Your task to perform on an android device: add a contact in the contacts app Image 0: 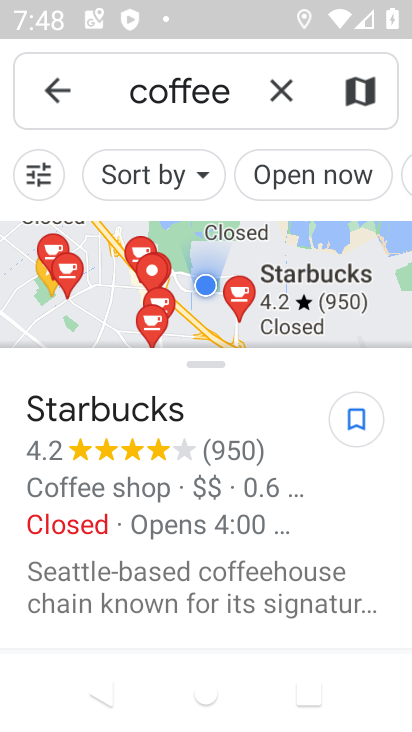
Step 0: press home button
Your task to perform on an android device: add a contact in the contacts app Image 1: 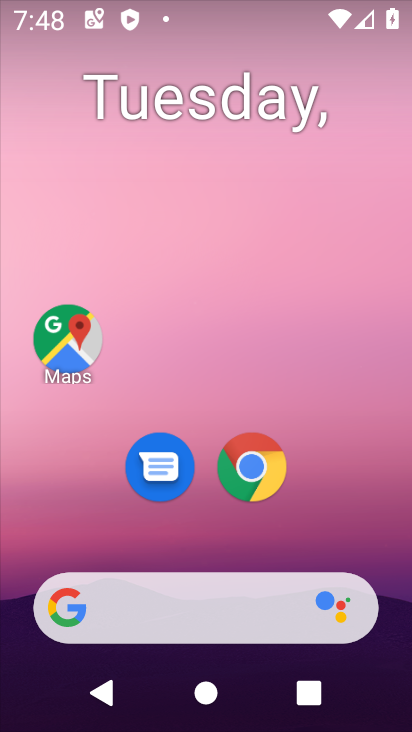
Step 1: drag from (364, 530) to (260, 160)
Your task to perform on an android device: add a contact in the contacts app Image 2: 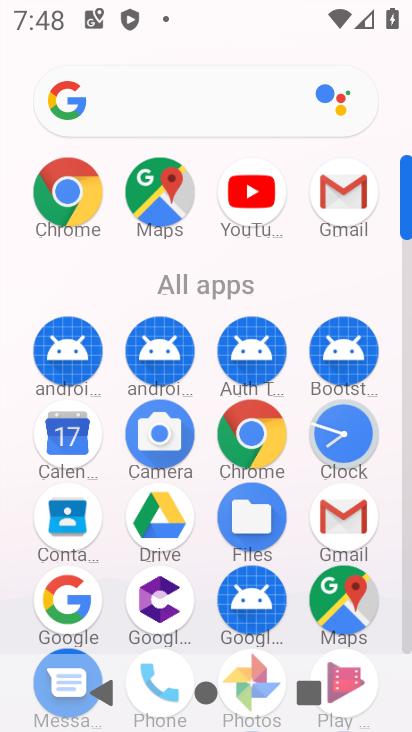
Step 2: click (56, 512)
Your task to perform on an android device: add a contact in the contacts app Image 3: 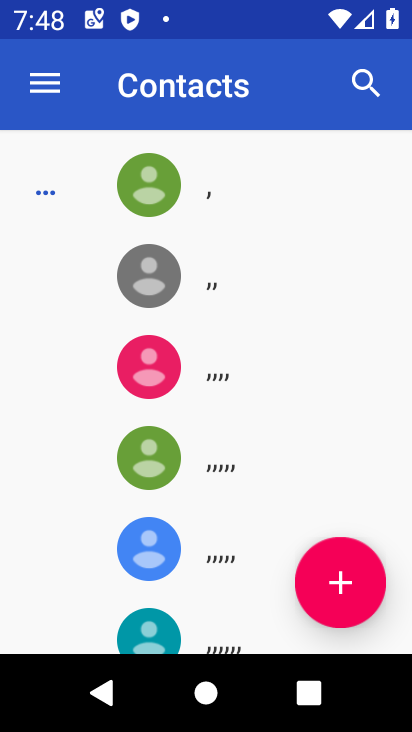
Step 3: click (334, 584)
Your task to perform on an android device: add a contact in the contacts app Image 4: 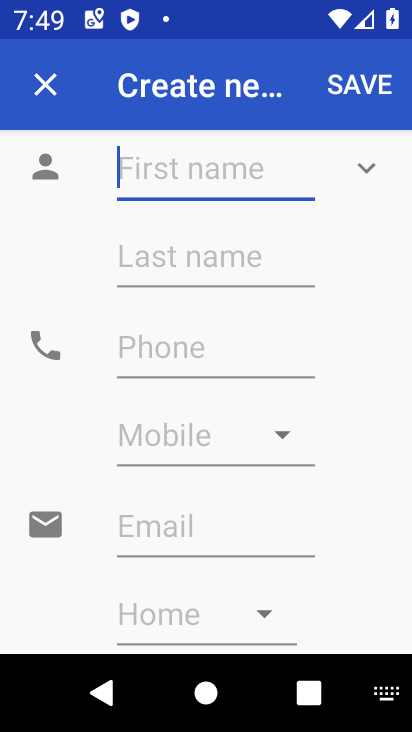
Step 4: click (256, 186)
Your task to perform on an android device: add a contact in the contacts app Image 5: 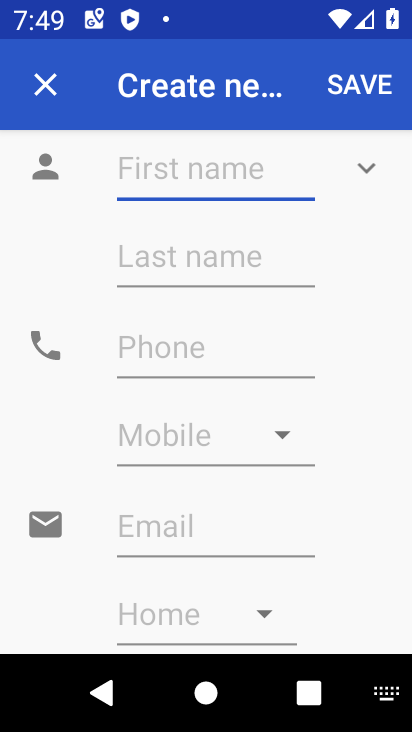
Step 5: type "bhjvjg"
Your task to perform on an android device: add a contact in the contacts app Image 6: 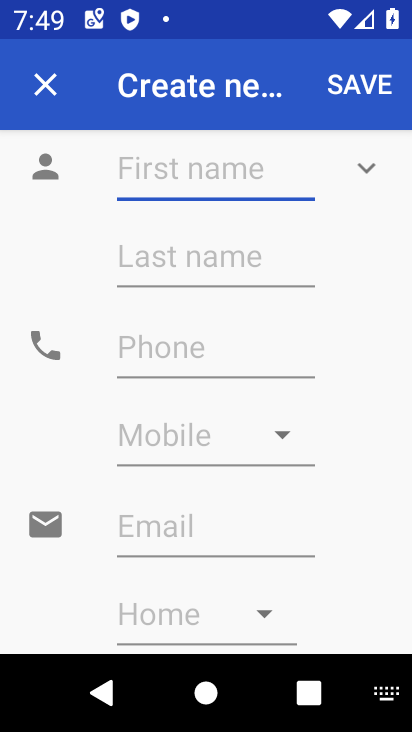
Step 6: click (280, 347)
Your task to perform on an android device: add a contact in the contacts app Image 7: 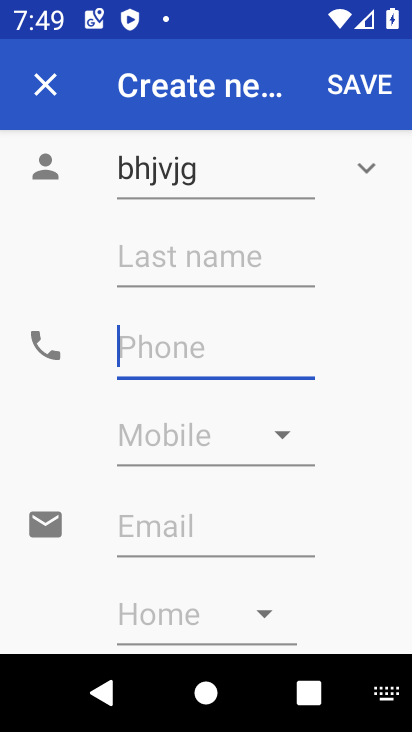
Step 7: type "y7979679"
Your task to perform on an android device: add a contact in the contacts app Image 8: 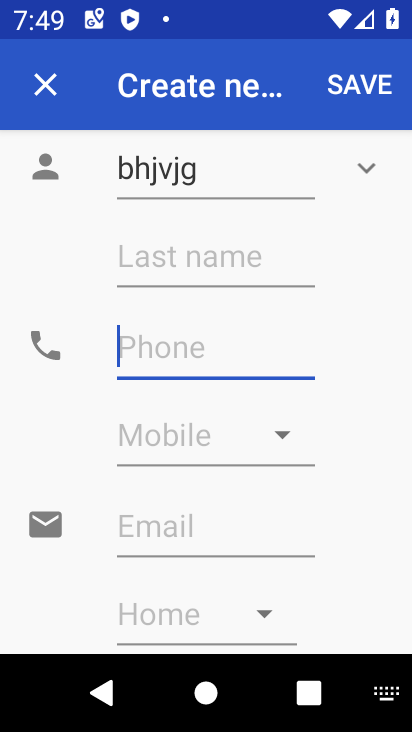
Step 8: click (405, 604)
Your task to perform on an android device: add a contact in the contacts app Image 9: 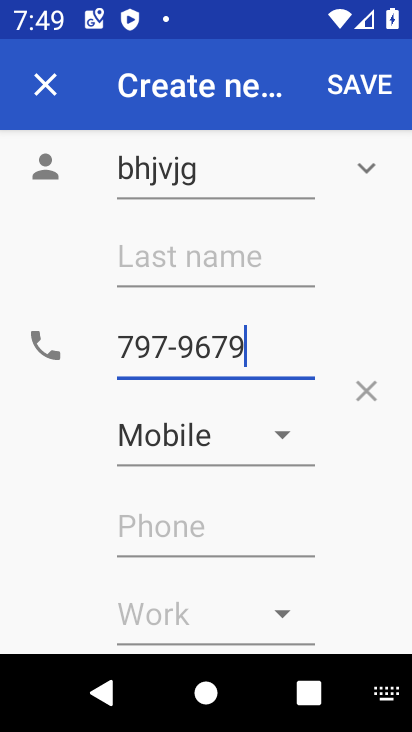
Step 9: click (360, 79)
Your task to perform on an android device: add a contact in the contacts app Image 10: 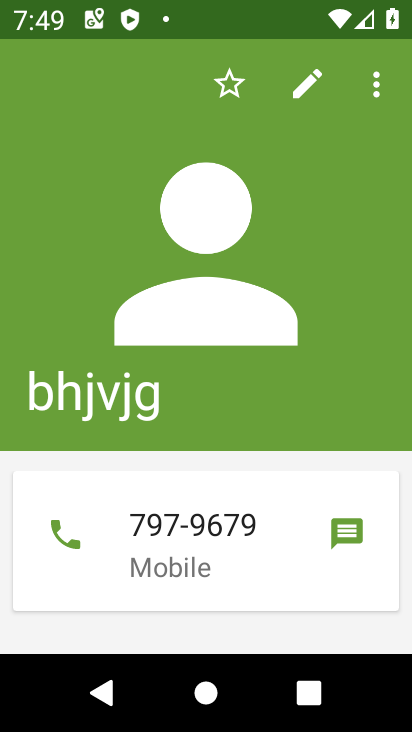
Step 10: task complete